Your task to perform on an android device: turn on bluetooth scan Image 0: 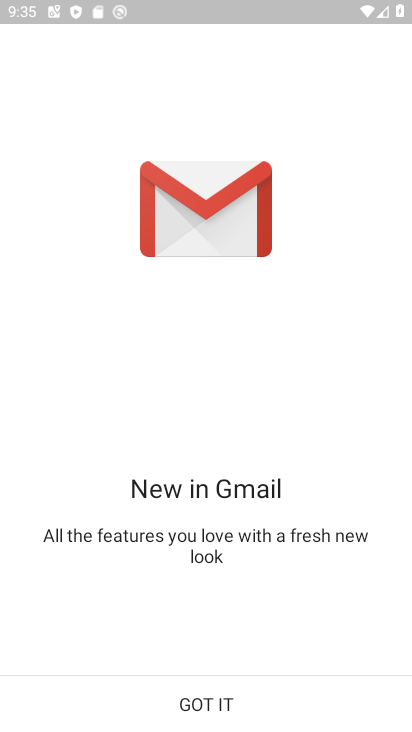
Step 0: press home button
Your task to perform on an android device: turn on bluetooth scan Image 1: 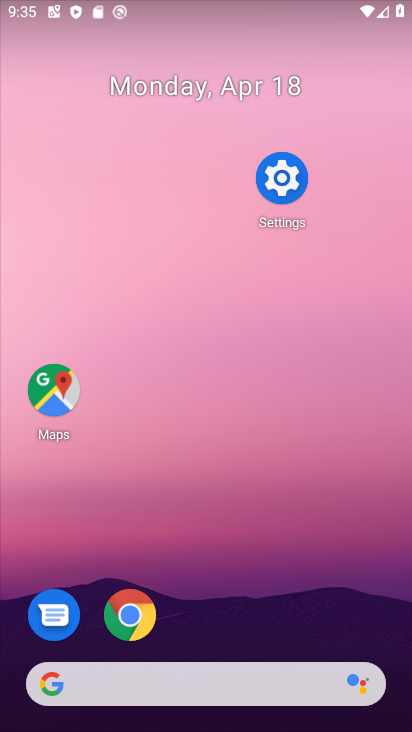
Step 1: drag from (218, 507) to (130, 140)
Your task to perform on an android device: turn on bluetooth scan Image 2: 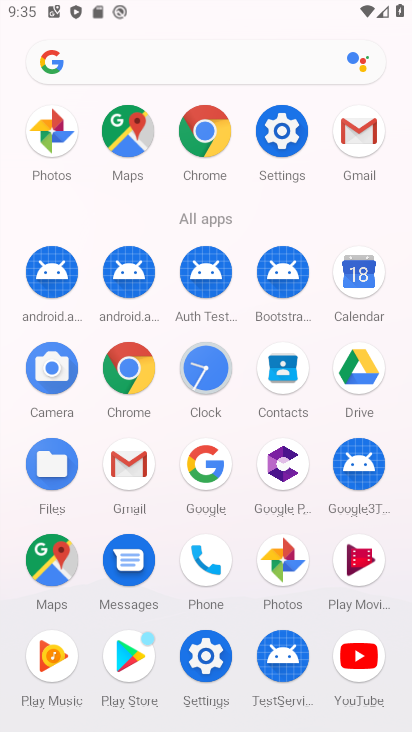
Step 2: click (202, 658)
Your task to perform on an android device: turn on bluetooth scan Image 3: 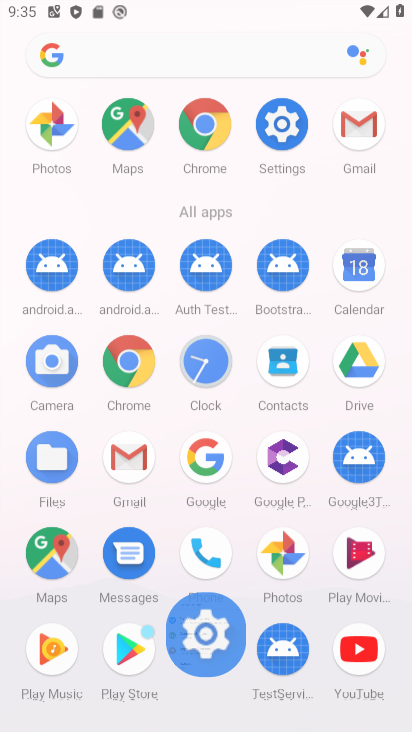
Step 3: click (208, 659)
Your task to perform on an android device: turn on bluetooth scan Image 4: 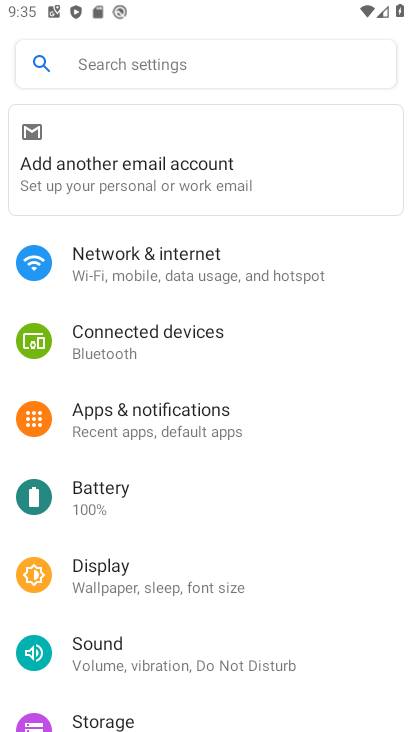
Step 4: click (208, 659)
Your task to perform on an android device: turn on bluetooth scan Image 5: 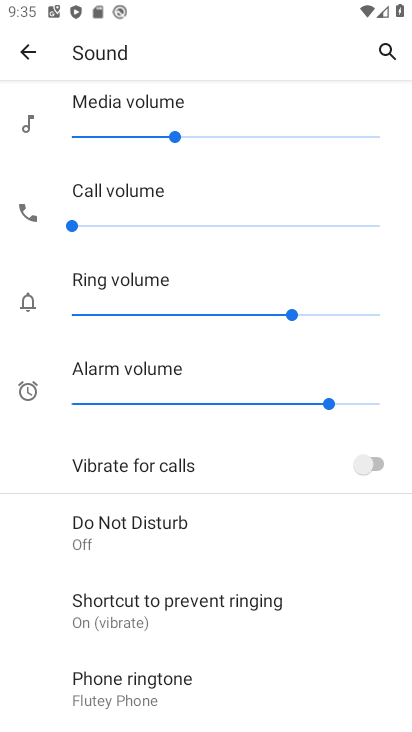
Step 5: click (21, 51)
Your task to perform on an android device: turn on bluetooth scan Image 6: 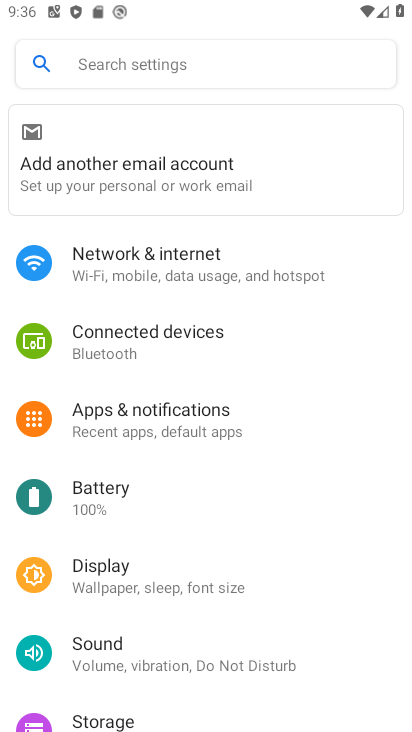
Step 6: drag from (293, 638) to (299, 293)
Your task to perform on an android device: turn on bluetooth scan Image 7: 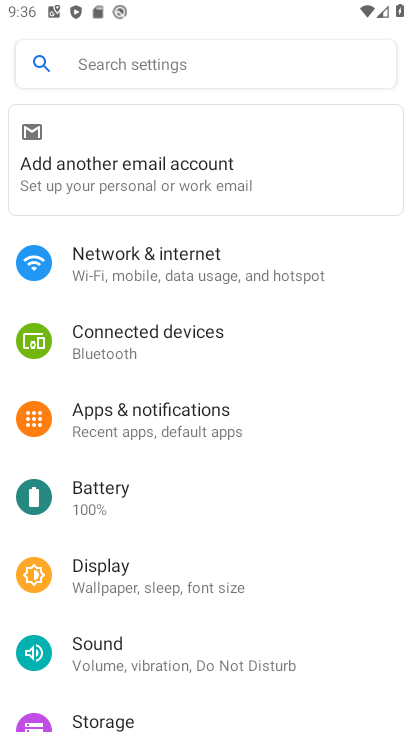
Step 7: drag from (271, 599) to (214, 401)
Your task to perform on an android device: turn on bluetooth scan Image 8: 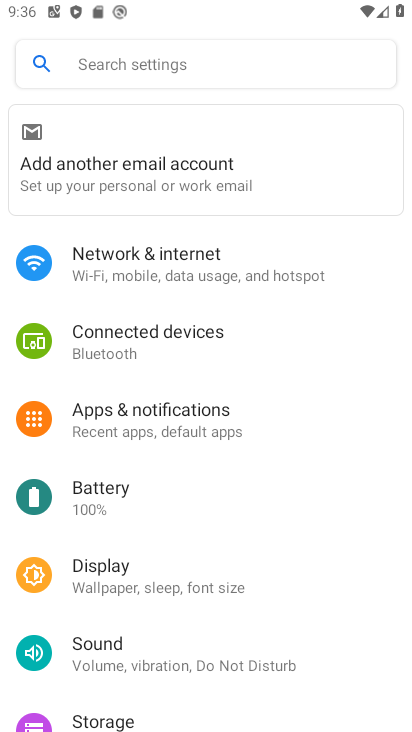
Step 8: drag from (213, 625) to (245, 128)
Your task to perform on an android device: turn on bluetooth scan Image 9: 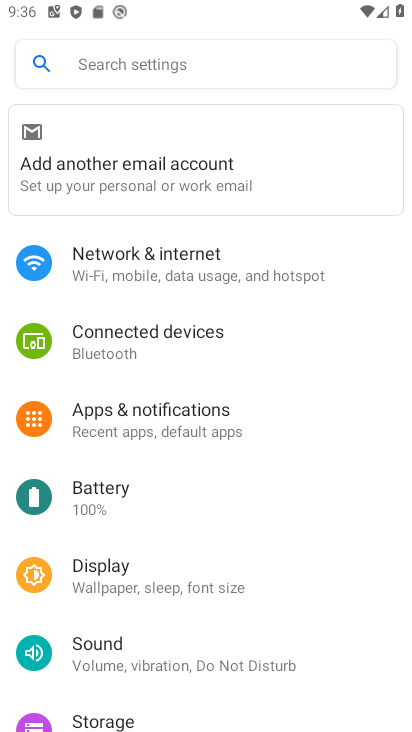
Step 9: drag from (256, 556) to (241, 270)
Your task to perform on an android device: turn on bluetooth scan Image 10: 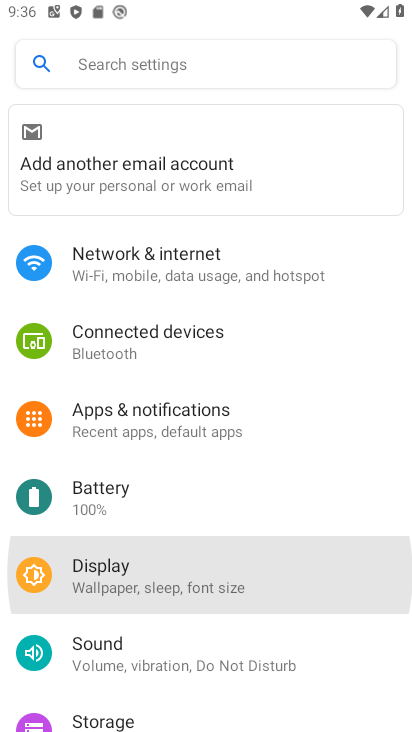
Step 10: drag from (183, 566) to (181, 261)
Your task to perform on an android device: turn on bluetooth scan Image 11: 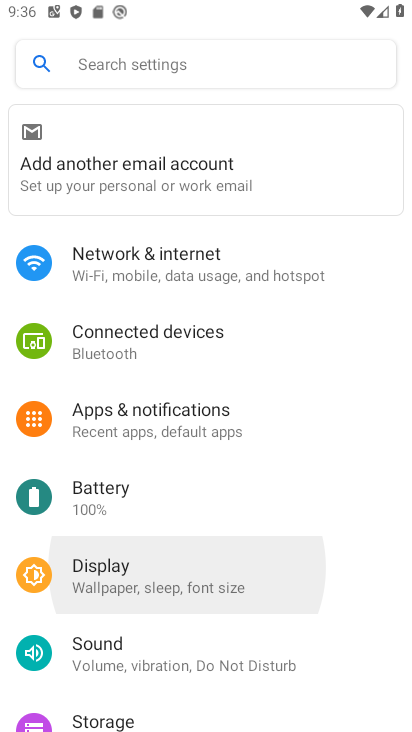
Step 11: drag from (257, 601) to (225, 369)
Your task to perform on an android device: turn on bluetooth scan Image 12: 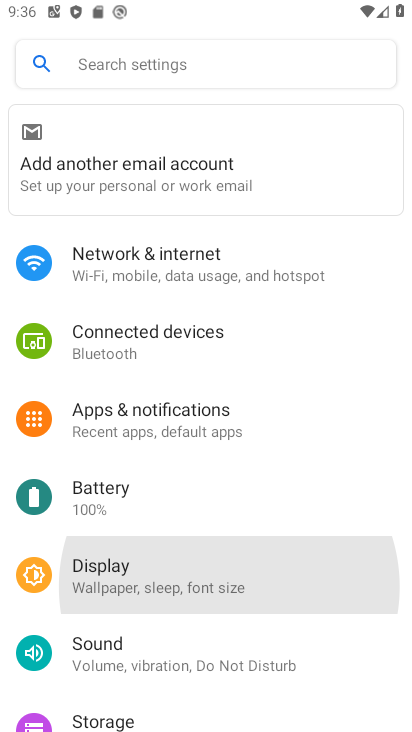
Step 12: drag from (261, 617) to (254, 284)
Your task to perform on an android device: turn on bluetooth scan Image 13: 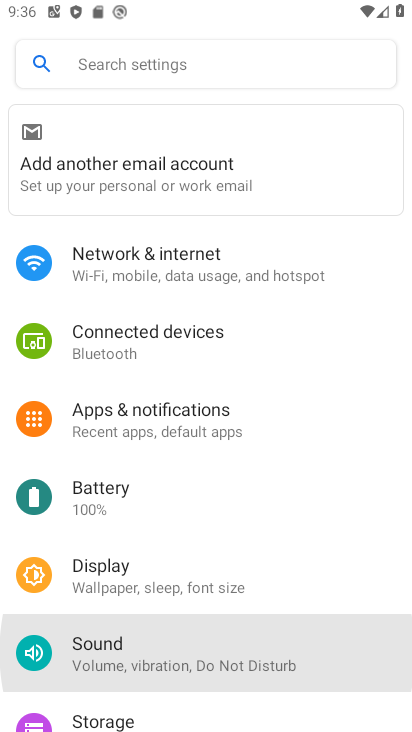
Step 13: drag from (255, 716) to (244, 356)
Your task to perform on an android device: turn on bluetooth scan Image 14: 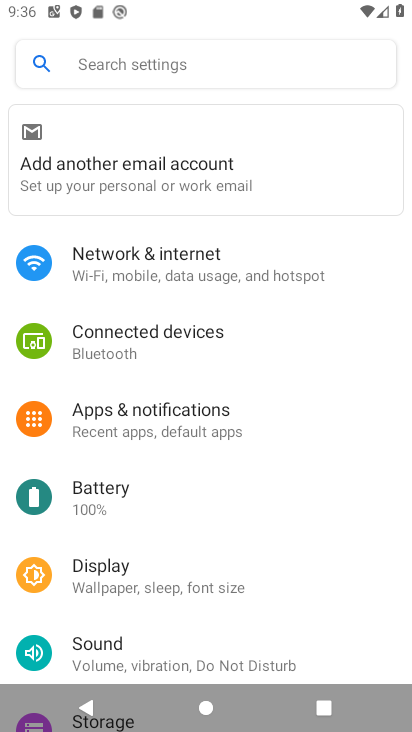
Step 14: drag from (242, 624) to (184, 314)
Your task to perform on an android device: turn on bluetooth scan Image 15: 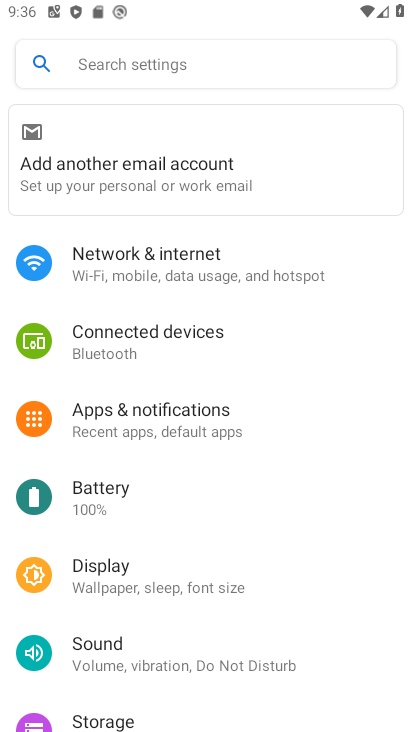
Step 15: drag from (231, 580) to (200, 264)
Your task to perform on an android device: turn on bluetooth scan Image 16: 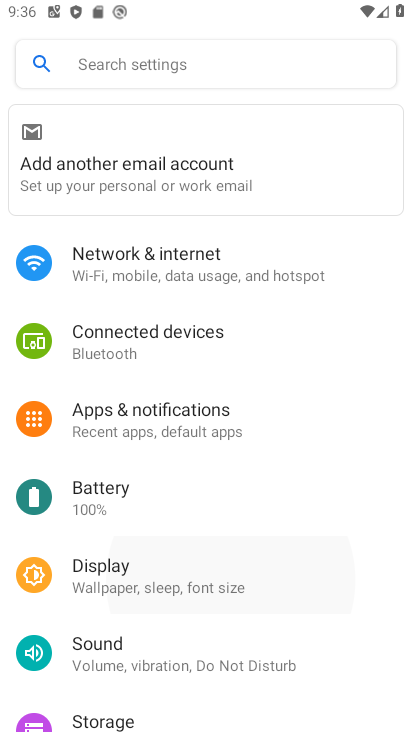
Step 16: drag from (258, 525) to (244, 253)
Your task to perform on an android device: turn on bluetooth scan Image 17: 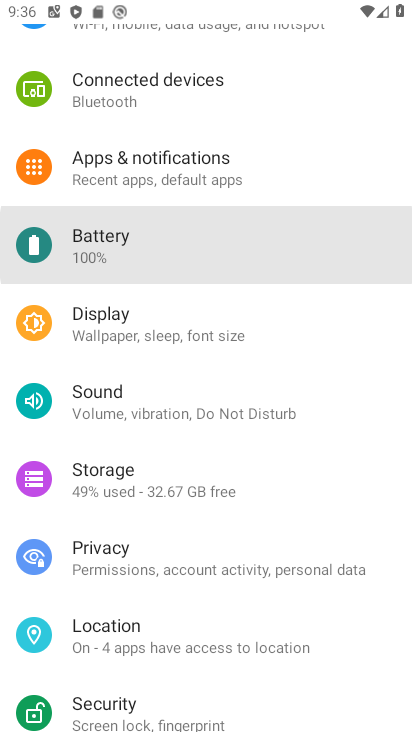
Step 17: drag from (252, 570) to (250, 321)
Your task to perform on an android device: turn on bluetooth scan Image 18: 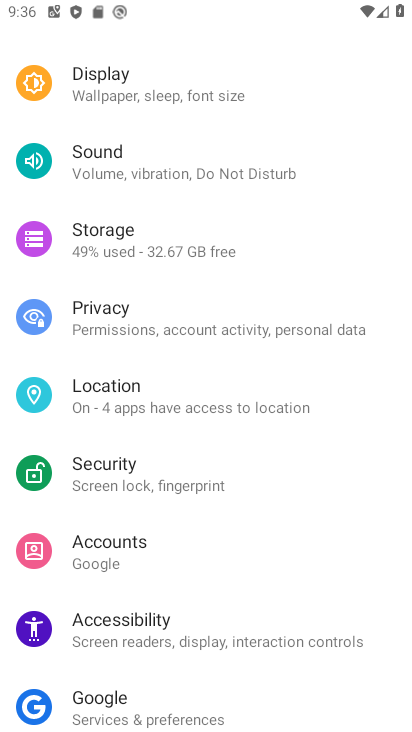
Step 18: click (117, 402)
Your task to perform on an android device: turn on bluetooth scan Image 19: 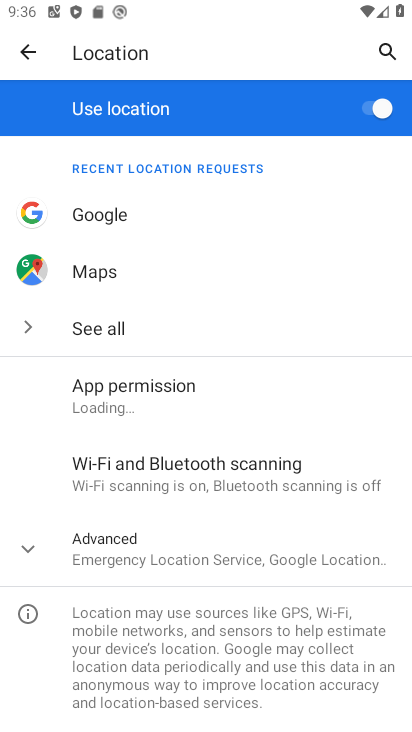
Step 19: click (197, 471)
Your task to perform on an android device: turn on bluetooth scan Image 20: 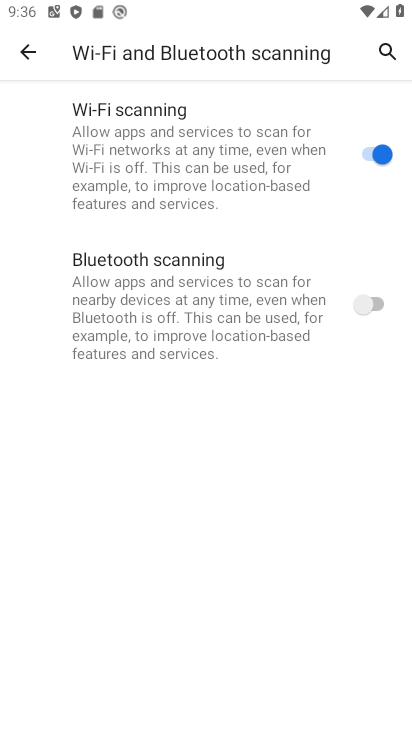
Step 20: click (356, 295)
Your task to perform on an android device: turn on bluetooth scan Image 21: 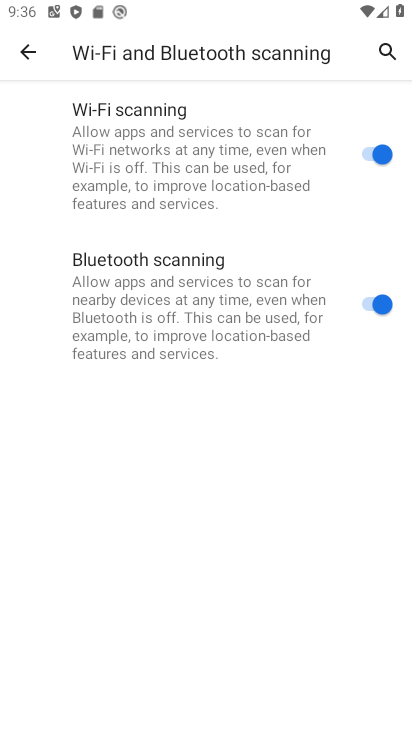
Step 21: task complete